Your task to perform on an android device: Check the weather Image 0: 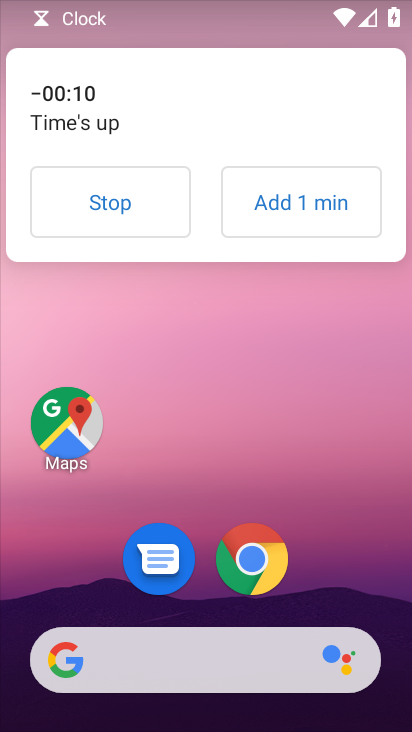
Step 0: click (228, 652)
Your task to perform on an android device: Check the weather Image 1: 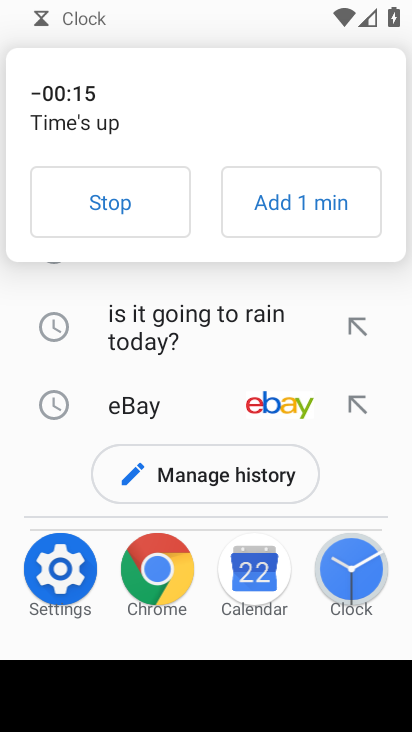
Step 1: click (151, 199)
Your task to perform on an android device: Check the weather Image 2: 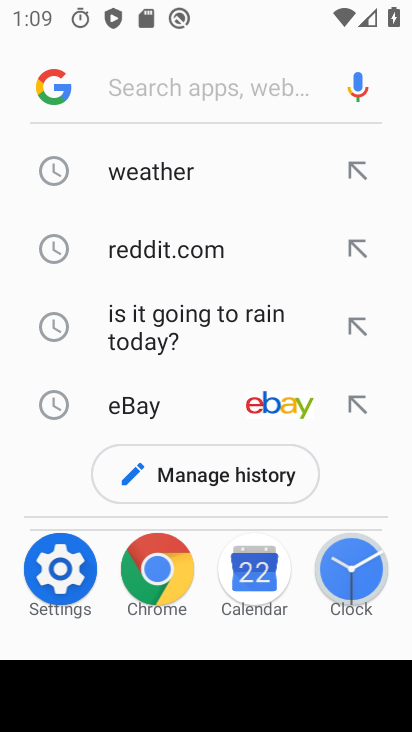
Step 2: click (163, 176)
Your task to perform on an android device: Check the weather Image 3: 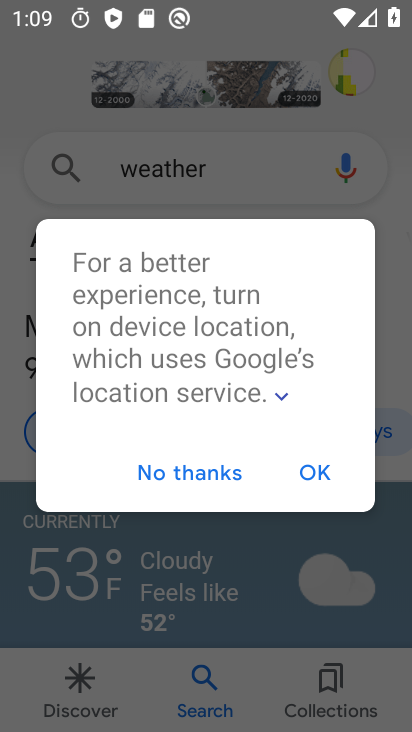
Step 3: click (188, 464)
Your task to perform on an android device: Check the weather Image 4: 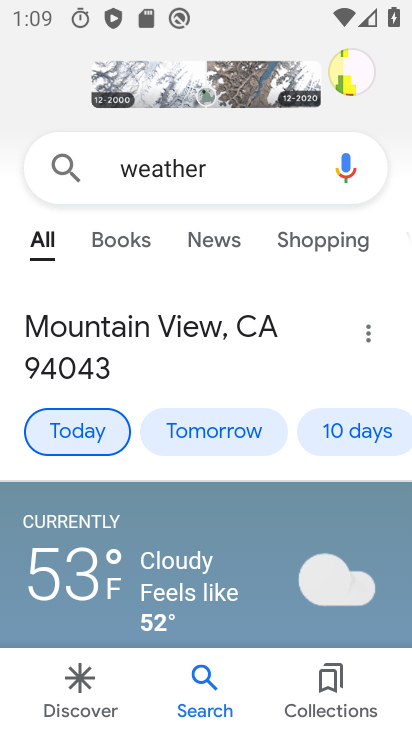
Step 4: task complete